Your task to perform on an android device: turn smart compose on in the gmail app Image 0: 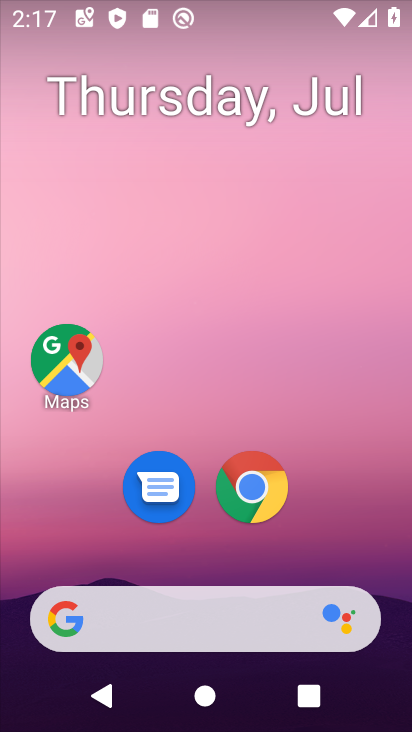
Step 0: drag from (363, 520) to (386, 188)
Your task to perform on an android device: turn smart compose on in the gmail app Image 1: 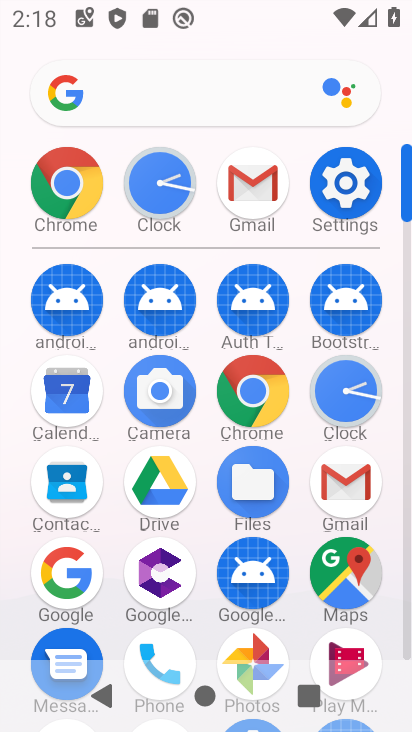
Step 1: click (348, 479)
Your task to perform on an android device: turn smart compose on in the gmail app Image 2: 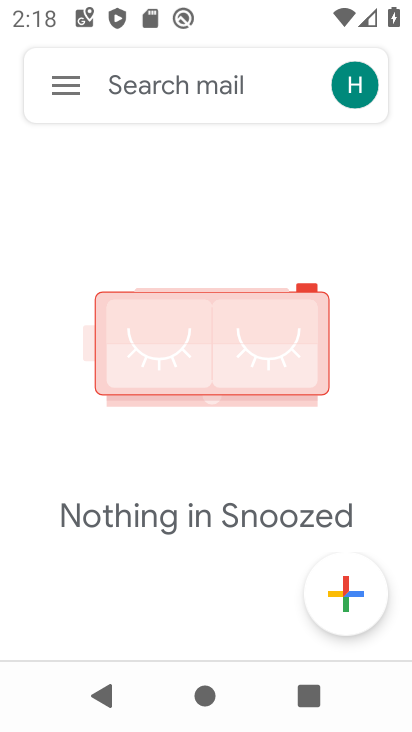
Step 2: click (66, 86)
Your task to perform on an android device: turn smart compose on in the gmail app Image 3: 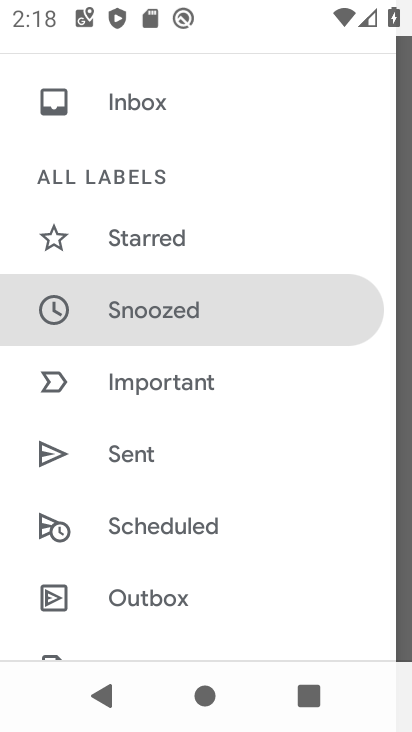
Step 3: drag from (326, 263) to (326, 207)
Your task to perform on an android device: turn smart compose on in the gmail app Image 4: 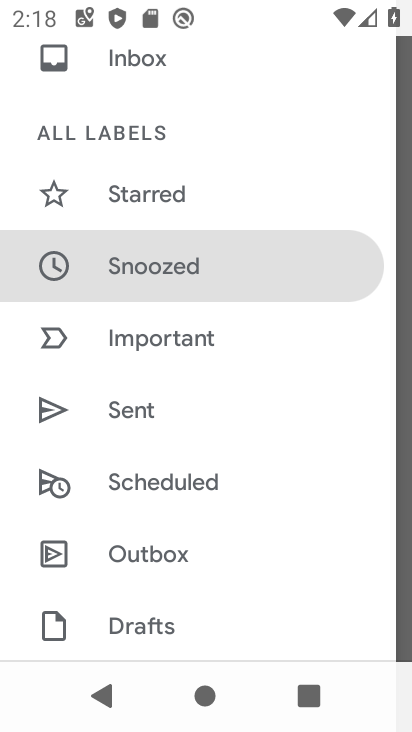
Step 4: drag from (328, 301) to (328, 241)
Your task to perform on an android device: turn smart compose on in the gmail app Image 5: 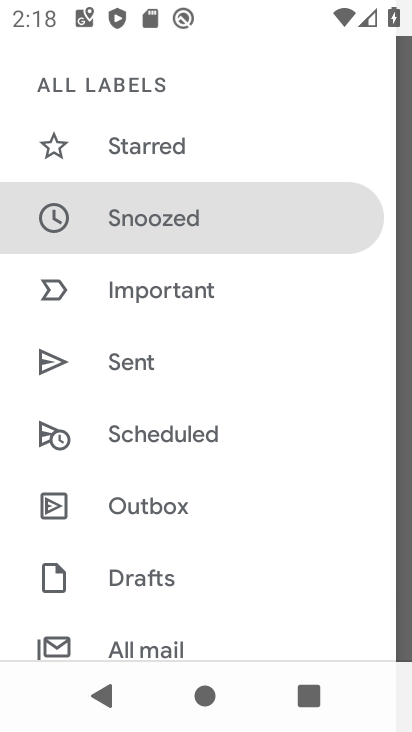
Step 5: drag from (322, 330) to (328, 263)
Your task to perform on an android device: turn smart compose on in the gmail app Image 6: 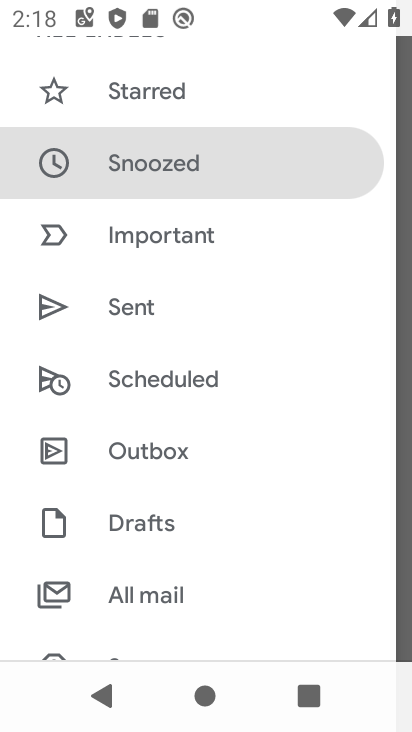
Step 6: drag from (323, 355) to (323, 264)
Your task to perform on an android device: turn smart compose on in the gmail app Image 7: 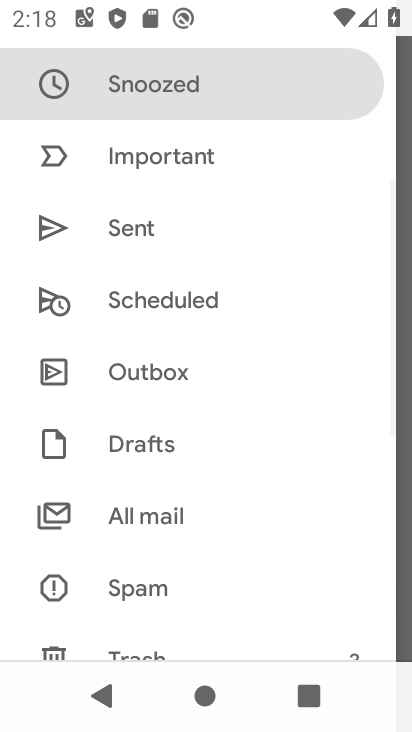
Step 7: drag from (313, 366) to (318, 279)
Your task to perform on an android device: turn smart compose on in the gmail app Image 8: 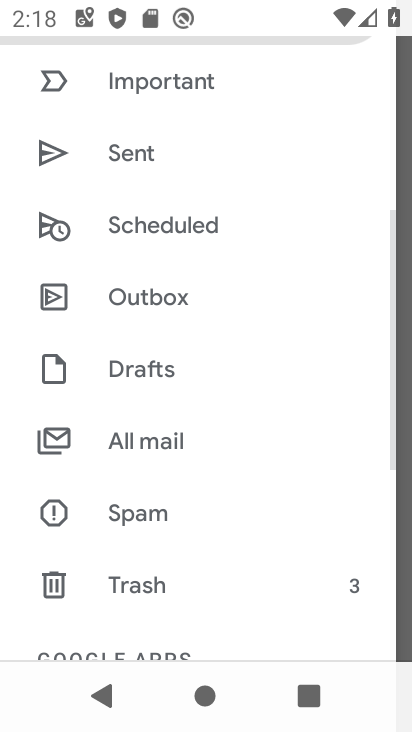
Step 8: drag from (313, 384) to (313, 293)
Your task to perform on an android device: turn smart compose on in the gmail app Image 9: 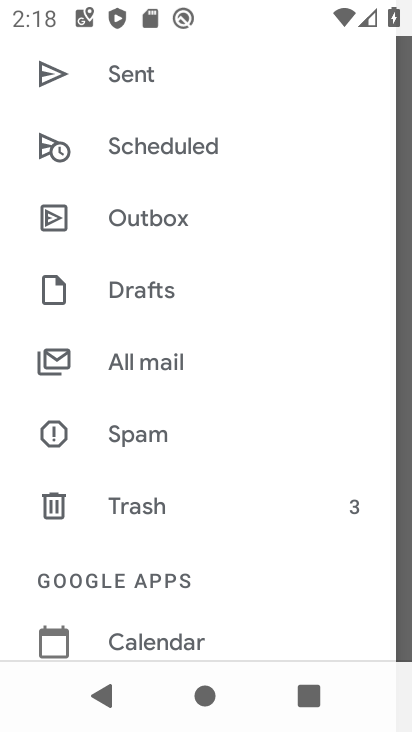
Step 9: drag from (307, 381) to (308, 285)
Your task to perform on an android device: turn smart compose on in the gmail app Image 10: 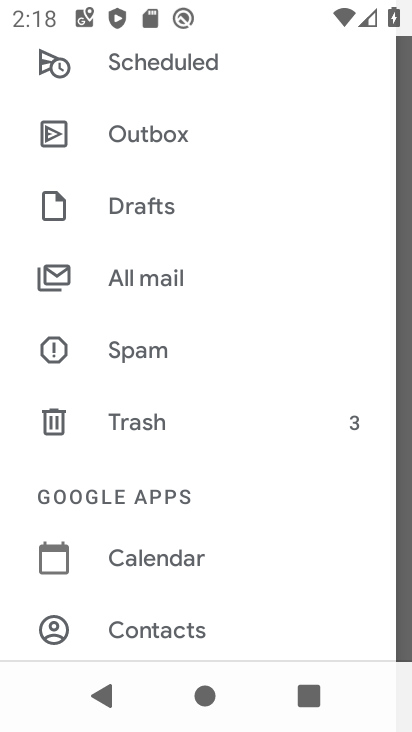
Step 10: drag from (298, 392) to (301, 306)
Your task to perform on an android device: turn smart compose on in the gmail app Image 11: 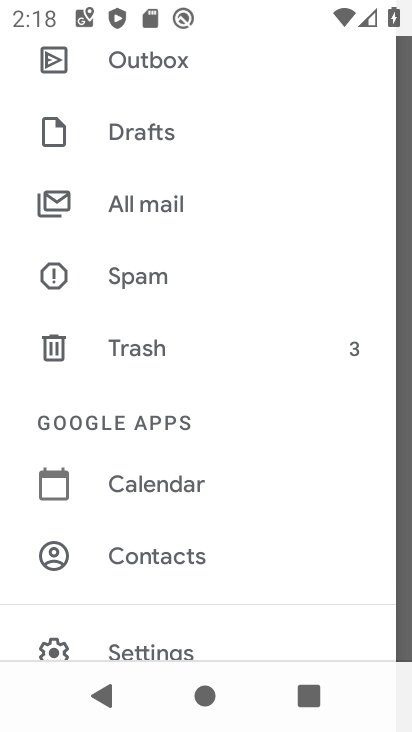
Step 11: drag from (301, 405) to (307, 290)
Your task to perform on an android device: turn smart compose on in the gmail app Image 12: 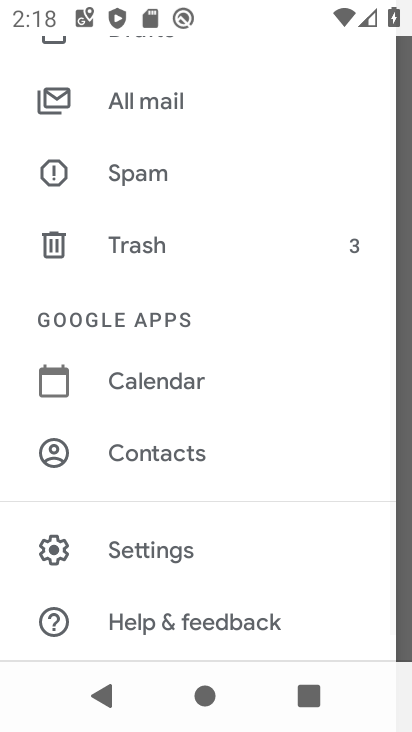
Step 12: drag from (306, 440) to (311, 323)
Your task to perform on an android device: turn smart compose on in the gmail app Image 13: 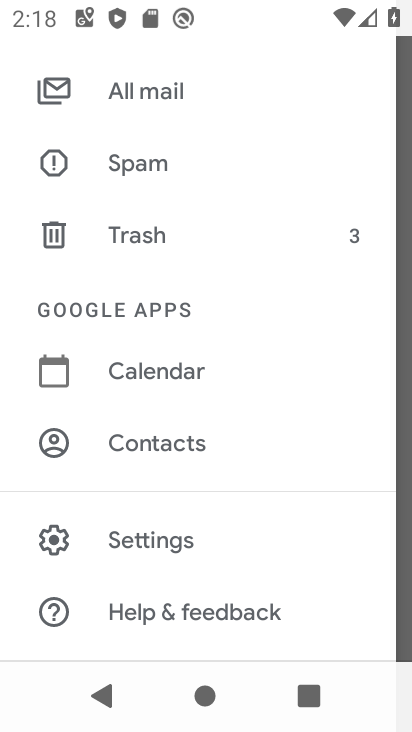
Step 13: click (243, 530)
Your task to perform on an android device: turn smart compose on in the gmail app Image 14: 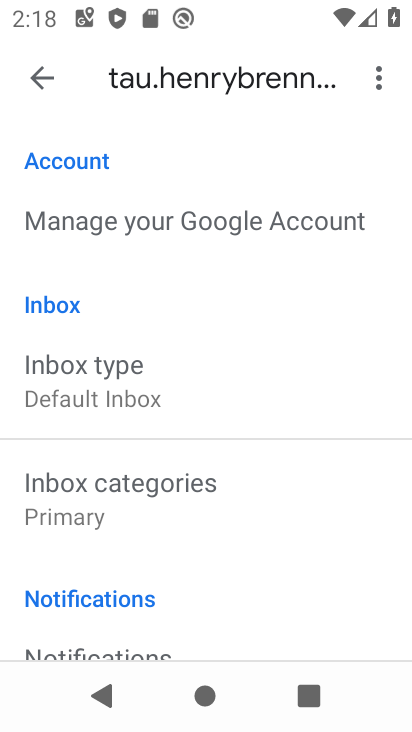
Step 14: task complete